Your task to perform on an android device: delete a single message in the gmail app Image 0: 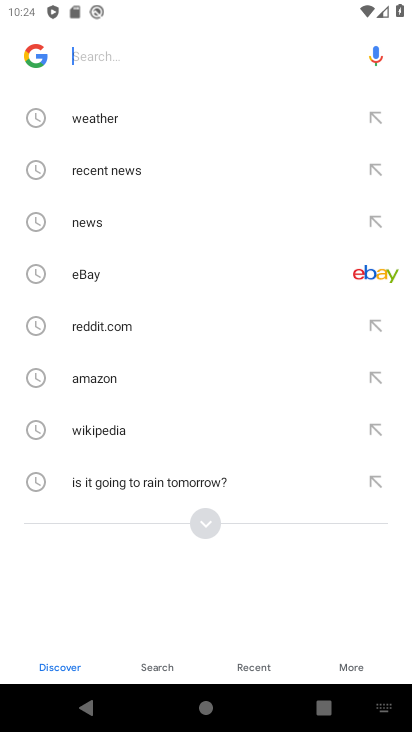
Step 0: press back button
Your task to perform on an android device: delete a single message in the gmail app Image 1: 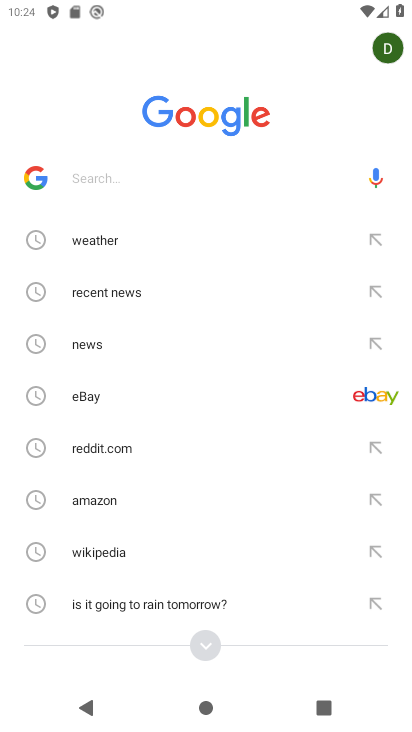
Step 1: press back button
Your task to perform on an android device: delete a single message in the gmail app Image 2: 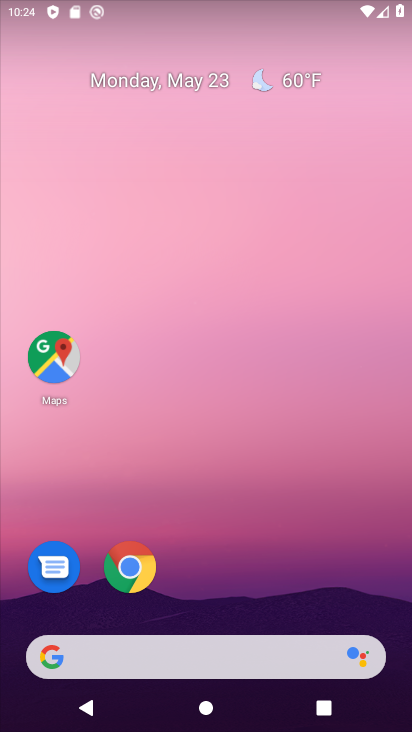
Step 2: drag from (193, 636) to (250, 151)
Your task to perform on an android device: delete a single message in the gmail app Image 3: 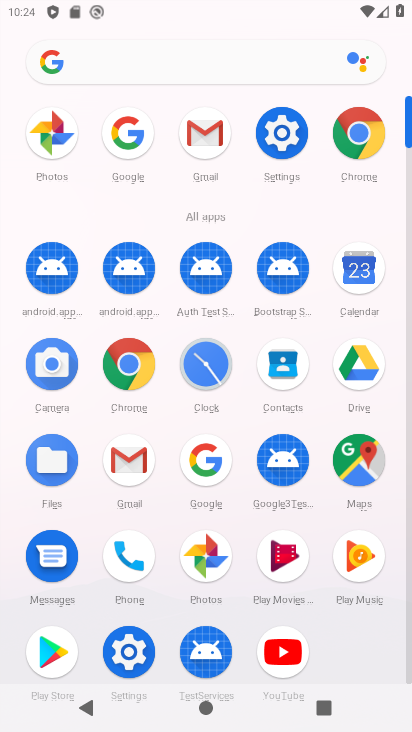
Step 3: click (115, 465)
Your task to perform on an android device: delete a single message in the gmail app Image 4: 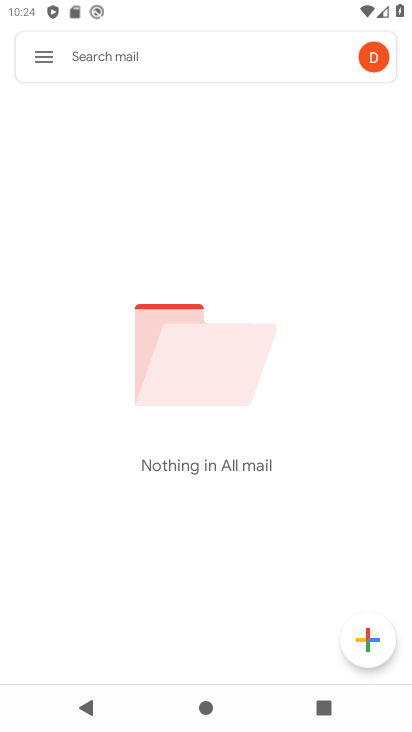
Step 4: task complete